Your task to perform on an android device: install app "Adobe Acrobat Reader: Edit PDF" Image 0: 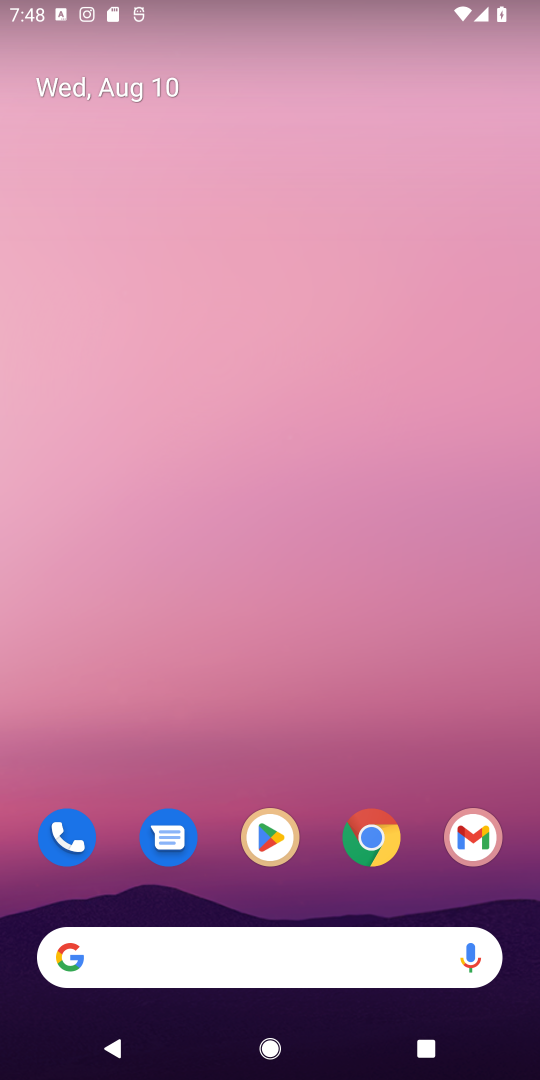
Step 0: press home button
Your task to perform on an android device: install app "Adobe Acrobat Reader: Edit PDF" Image 1: 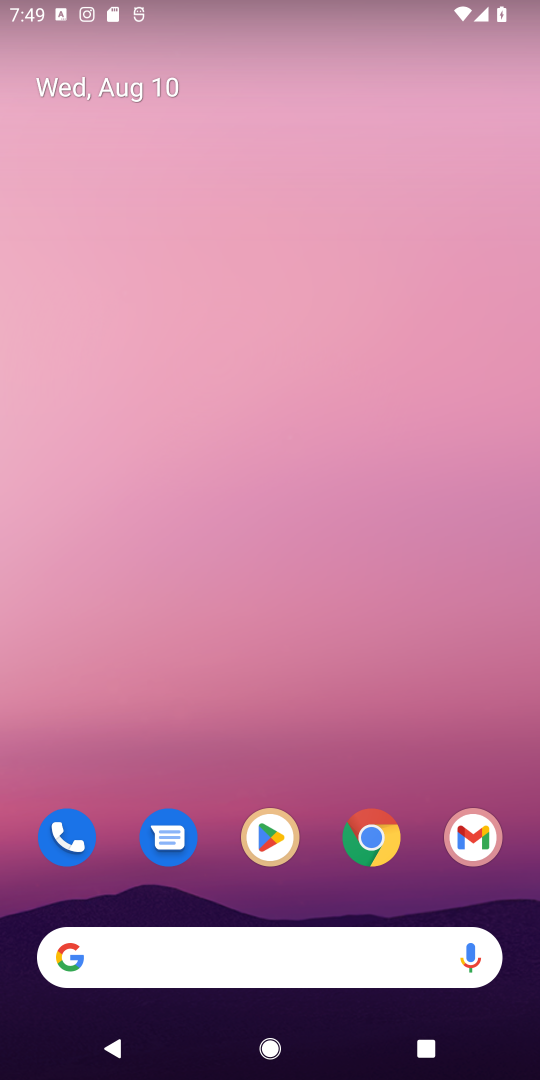
Step 1: click (257, 833)
Your task to perform on an android device: install app "Adobe Acrobat Reader: Edit PDF" Image 2: 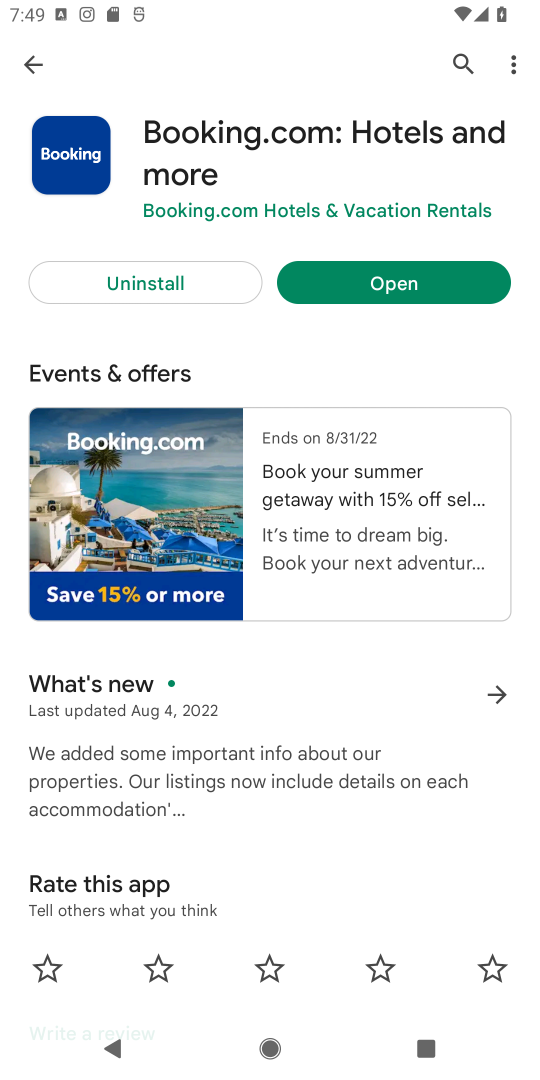
Step 2: click (459, 57)
Your task to perform on an android device: install app "Adobe Acrobat Reader: Edit PDF" Image 3: 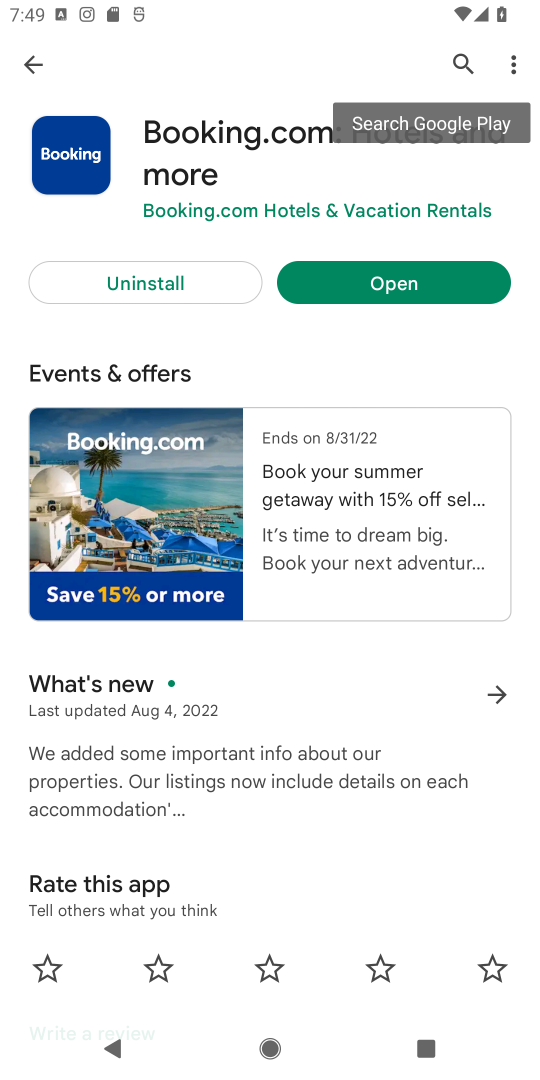
Step 3: click (466, 59)
Your task to perform on an android device: install app "Adobe Acrobat Reader: Edit PDF" Image 4: 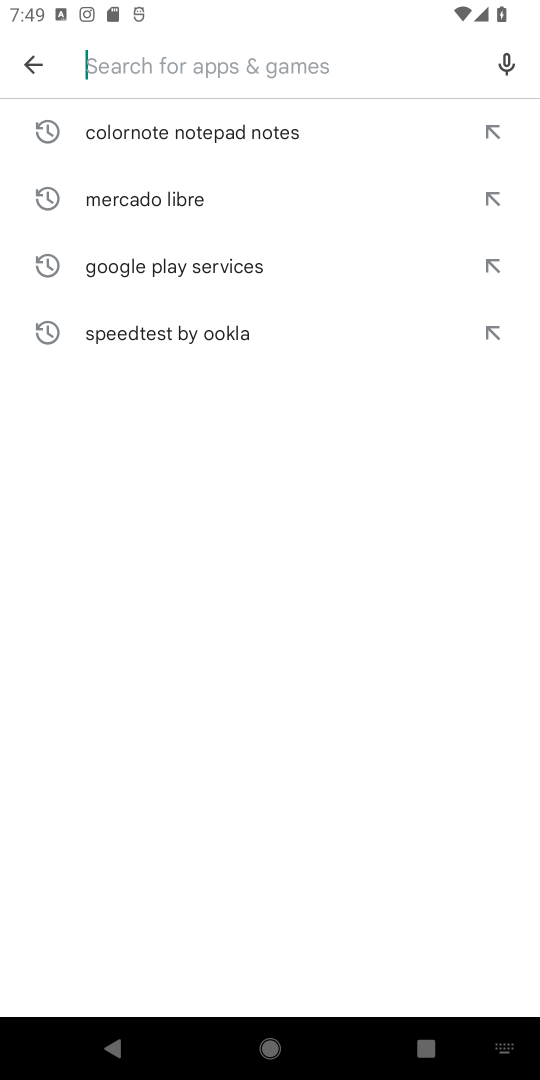
Step 4: type "Adobe Acrobat Reader: Edit PDF"
Your task to perform on an android device: install app "Adobe Acrobat Reader: Edit PDF" Image 5: 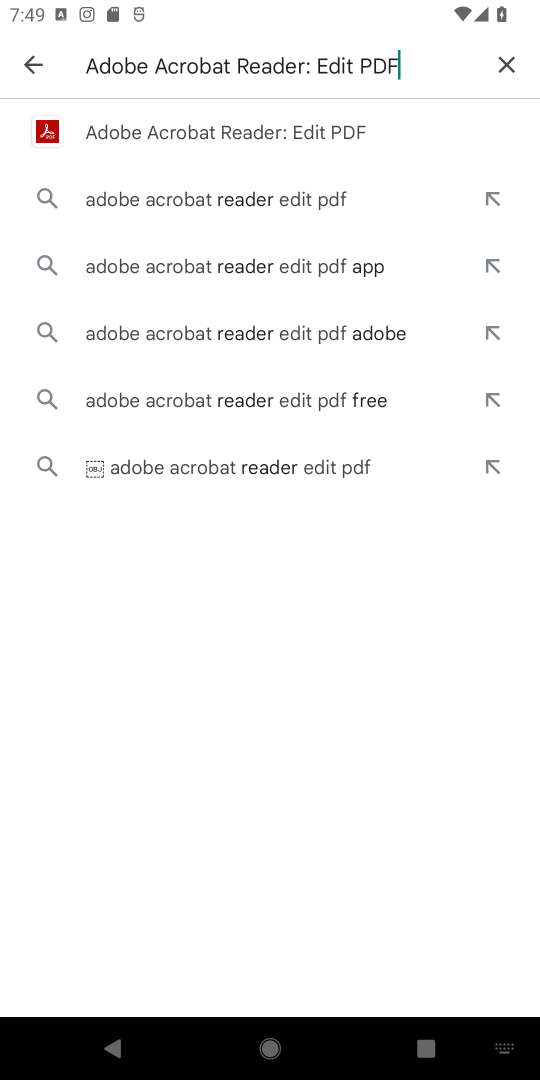
Step 5: click (226, 132)
Your task to perform on an android device: install app "Adobe Acrobat Reader: Edit PDF" Image 6: 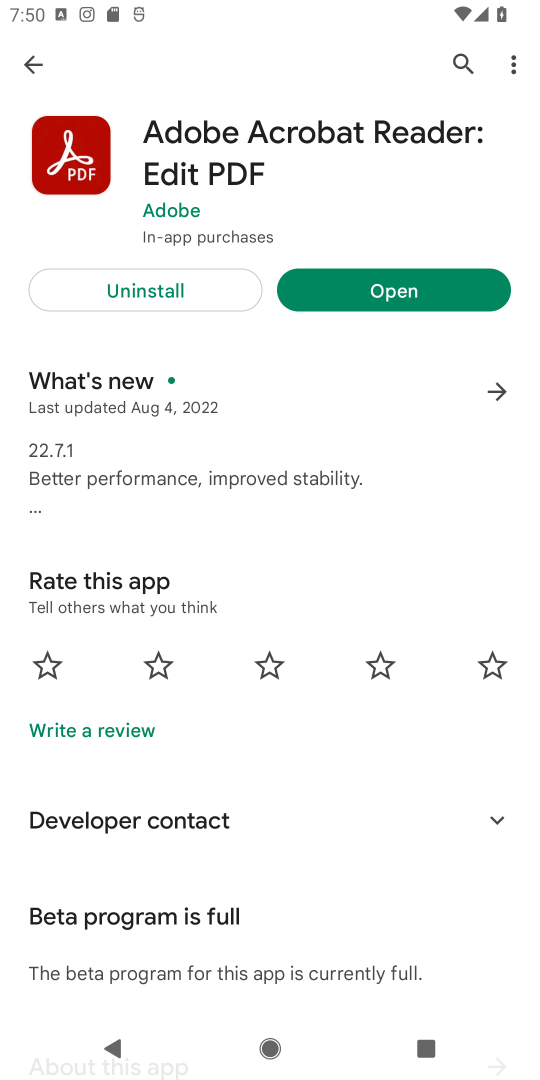
Step 6: task complete